Your task to perform on an android device: Open Maps and search for coffee Image 0: 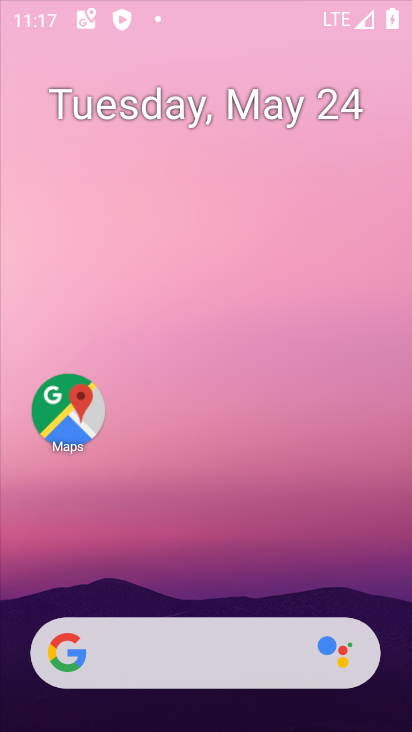
Step 0: drag from (264, 176) to (191, 210)
Your task to perform on an android device: Open Maps and search for coffee Image 1: 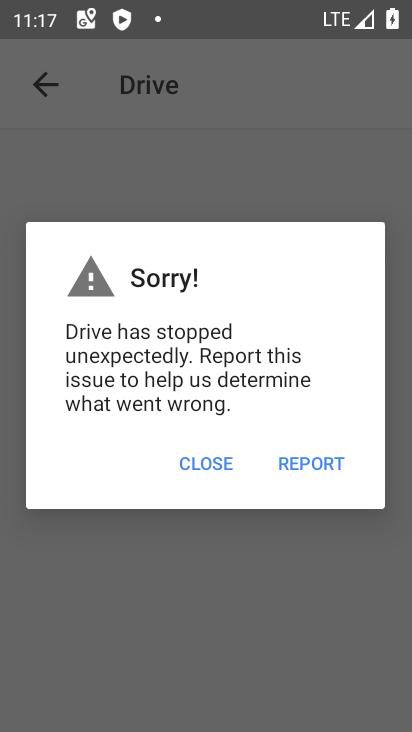
Step 1: press home button
Your task to perform on an android device: Open Maps and search for coffee Image 2: 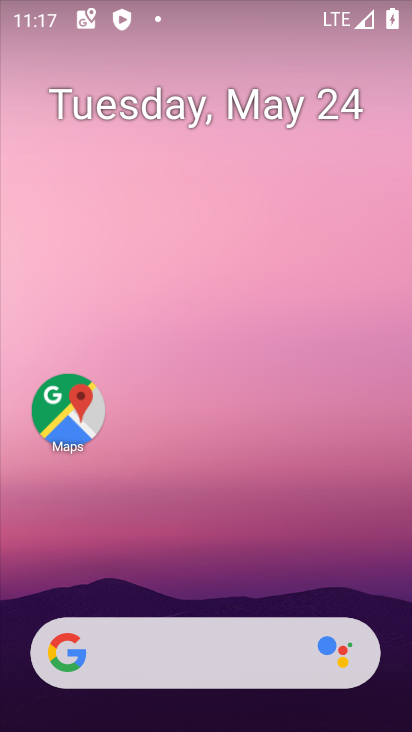
Step 2: drag from (237, 660) to (190, 108)
Your task to perform on an android device: Open Maps and search for coffee Image 3: 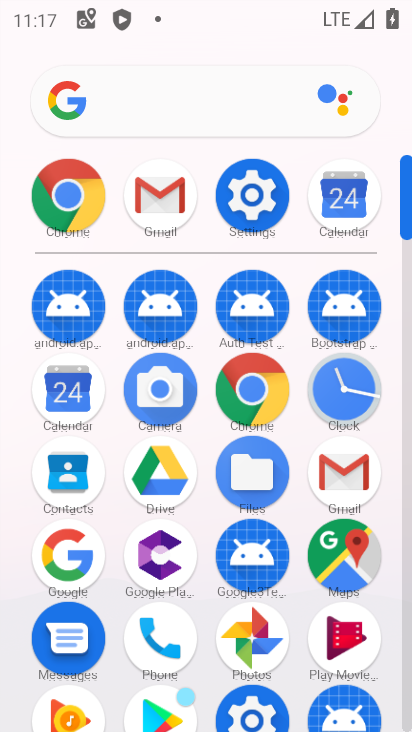
Step 3: click (343, 550)
Your task to perform on an android device: Open Maps and search for coffee Image 4: 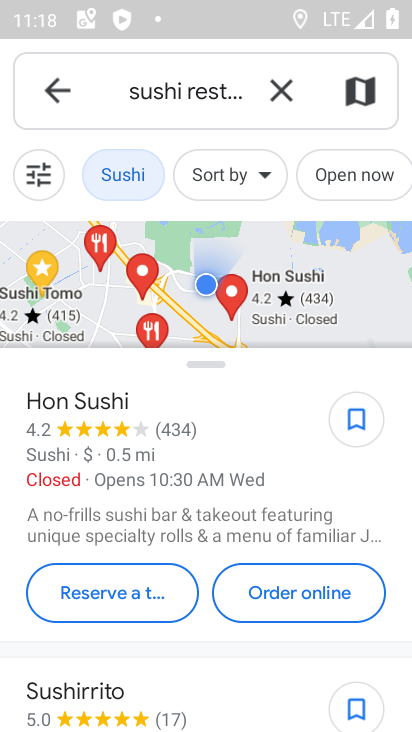
Step 4: click (288, 93)
Your task to perform on an android device: Open Maps and search for coffee Image 5: 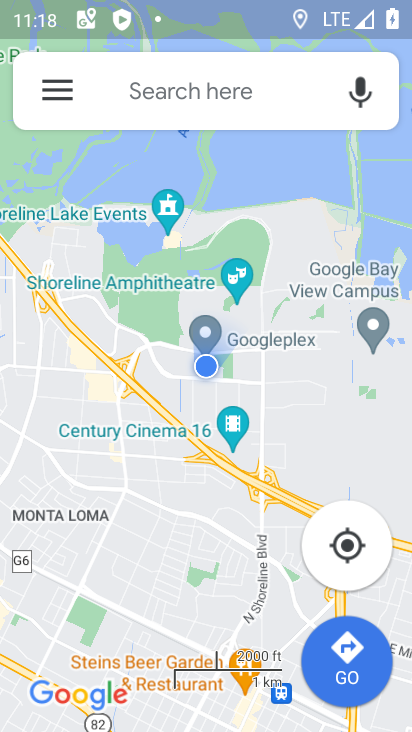
Step 5: click (171, 108)
Your task to perform on an android device: Open Maps and search for coffee Image 6: 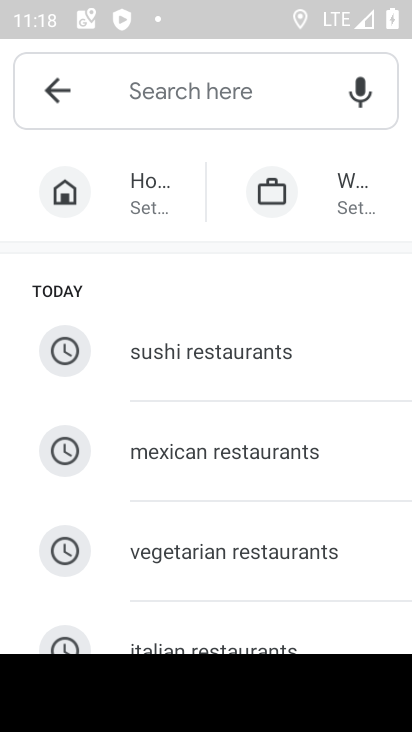
Step 6: type "coffee"
Your task to perform on an android device: Open Maps and search for coffee Image 7: 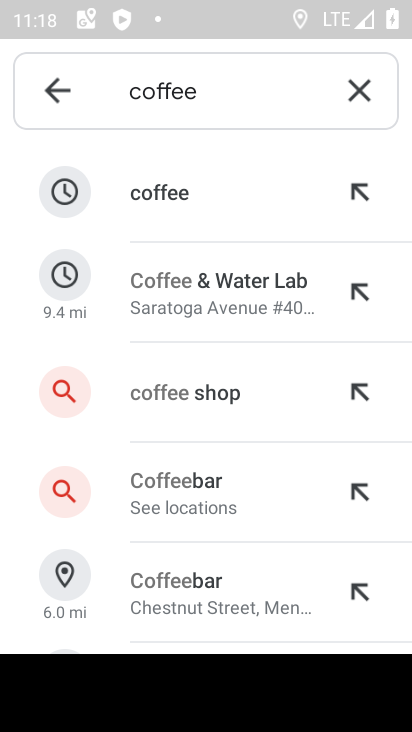
Step 7: click (172, 201)
Your task to perform on an android device: Open Maps and search for coffee Image 8: 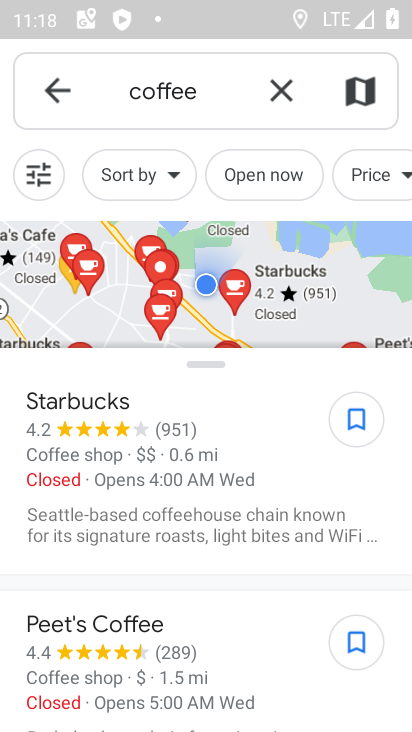
Step 8: task complete